Your task to perform on an android device: turn on airplane mode Image 0: 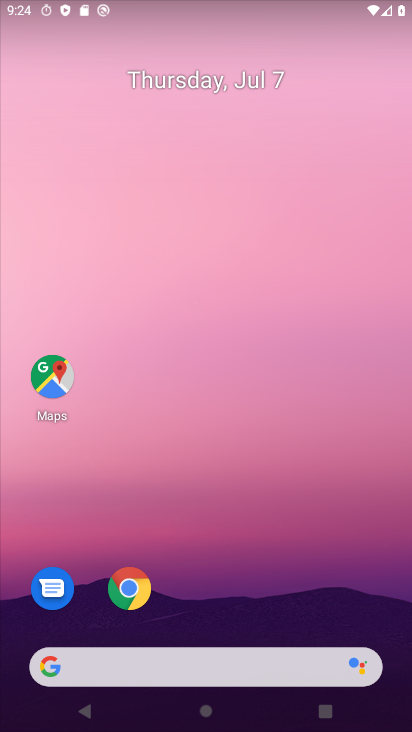
Step 0: drag from (291, 674) to (169, 261)
Your task to perform on an android device: turn on airplane mode Image 1: 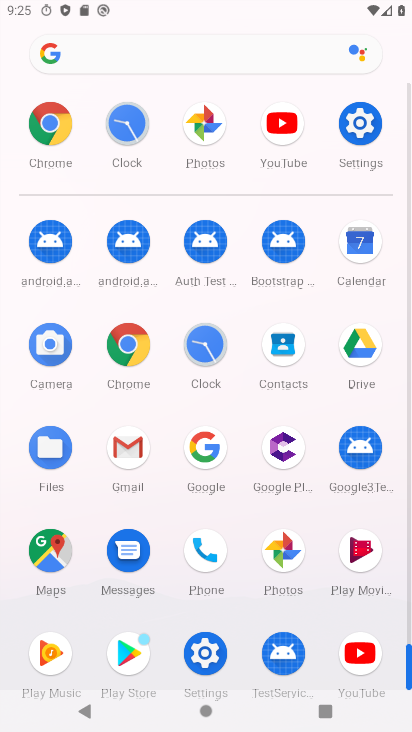
Step 1: click (353, 136)
Your task to perform on an android device: turn on airplane mode Image 2: 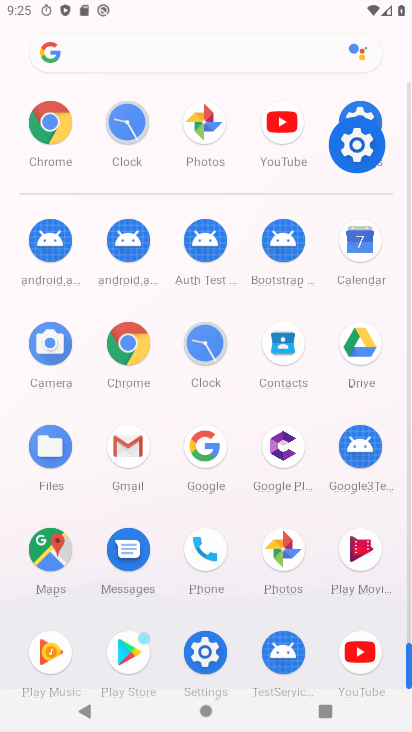
Step 2: click (357, 133)
Your task to perform on an android device: turn on airplane mode Image 3: 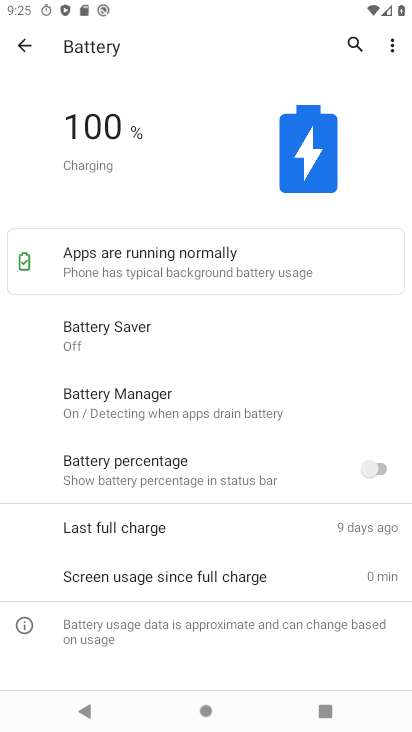
Step 3: click (18, 48)
Your task to perform on an android device: turn on airplane mode Image 4: 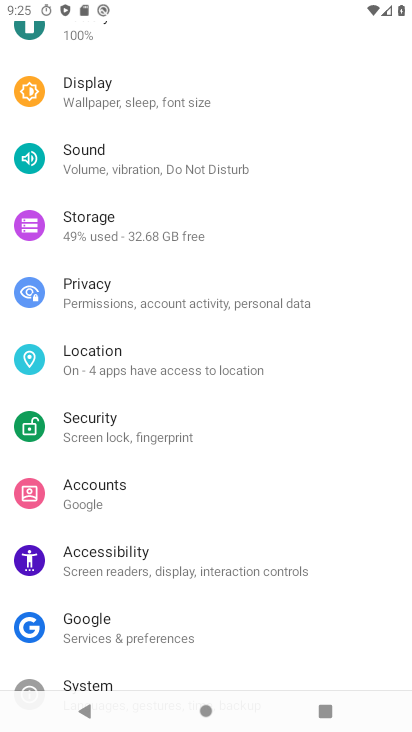
Step 4: drag from (94, 125) to (96, 616)
Your task to perform on an android device: turn on airplane mode Image 5: 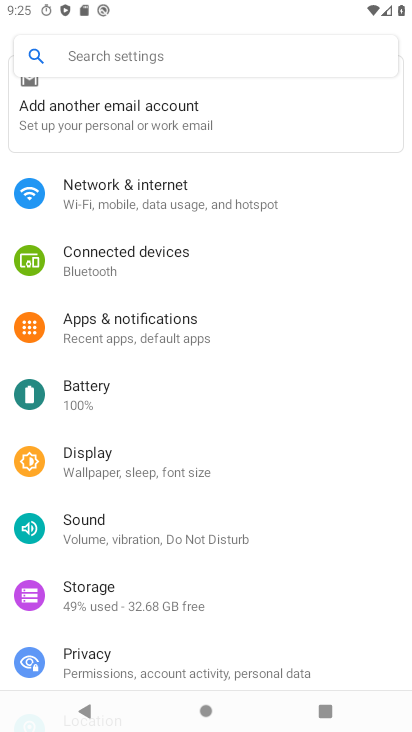
Step 5: drag from (96, 252) to (134, 557)
Your task to perform on an android device: turn on airplane mode Image 6: 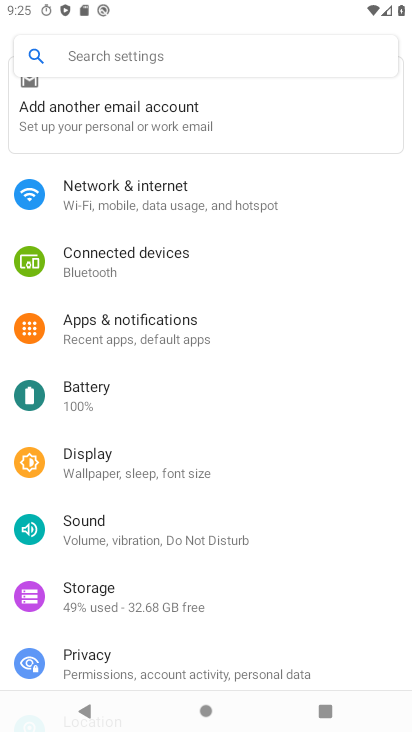
Step 6: click (141, 203)
Your task to perform on an android device: turn on airplane mode Image 7: 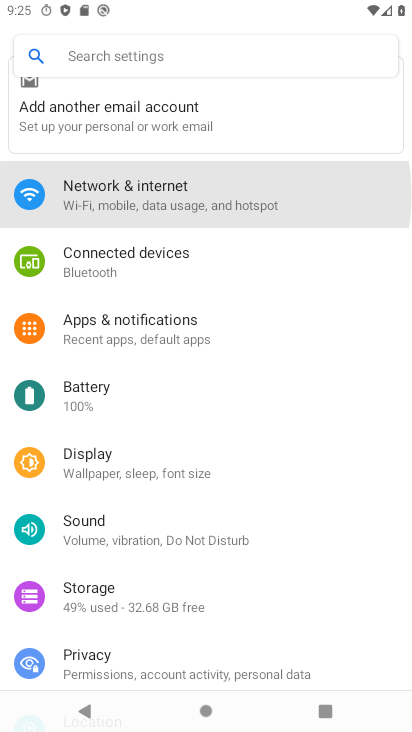
Step 7: click (144, 201)
Your task to perform on an android device: turn on airplane mode Image 8: 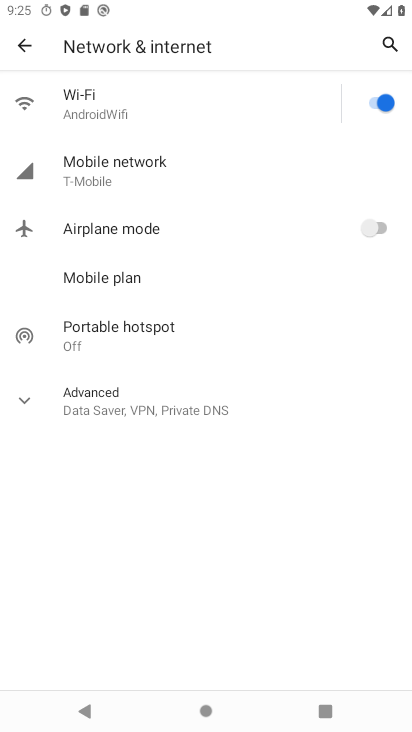
Step 8: click (147, 198)
Your task to perform on an android device: turn on airplane mode Image 9: 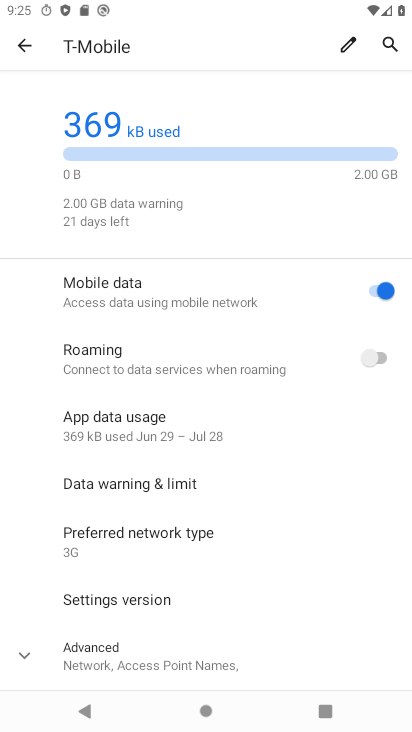
Step 9: task complete